Your task to perform on an android device: Open Wikipedia Image 0: 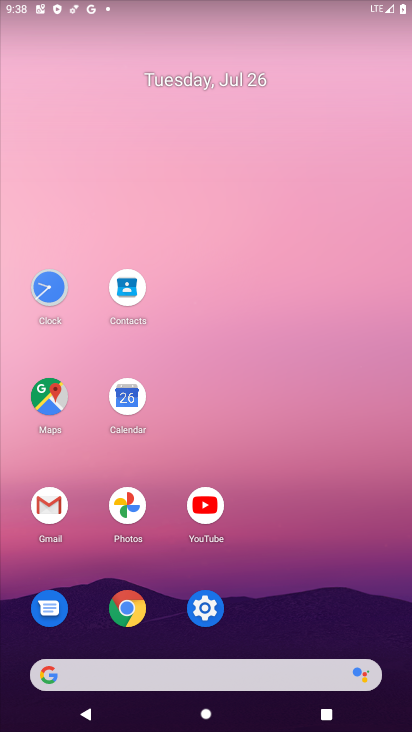
Step 0: click (132, 607)
Your task to perform on an android device: Open Wikipedia Image 1: 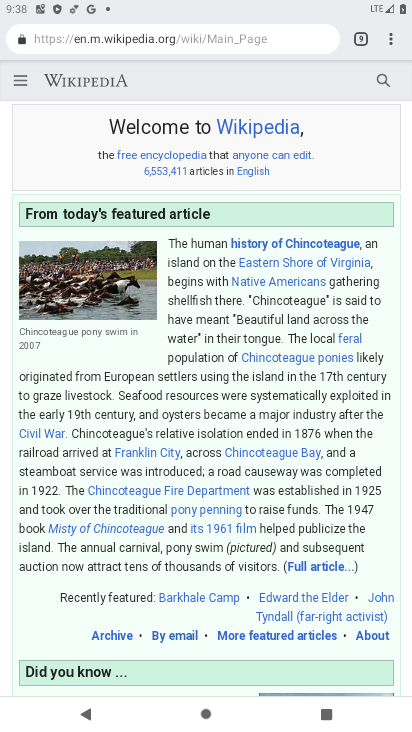
Step 1: task complete